Your task to perform on an android device: check data usage Image 0: 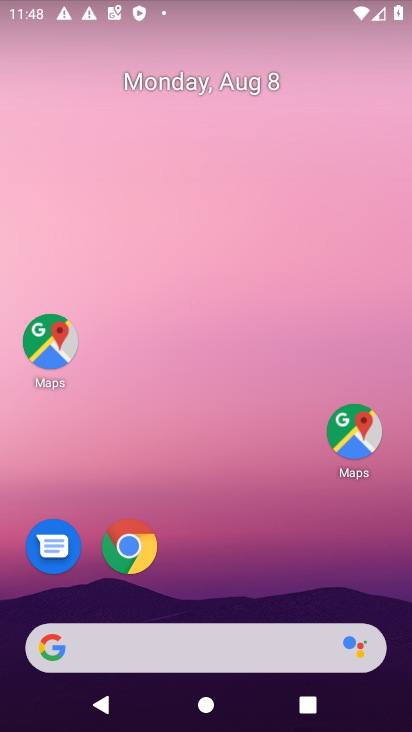
Step 0: click (216, 231)
Your task to perform on an android device: check data usage Image 1: 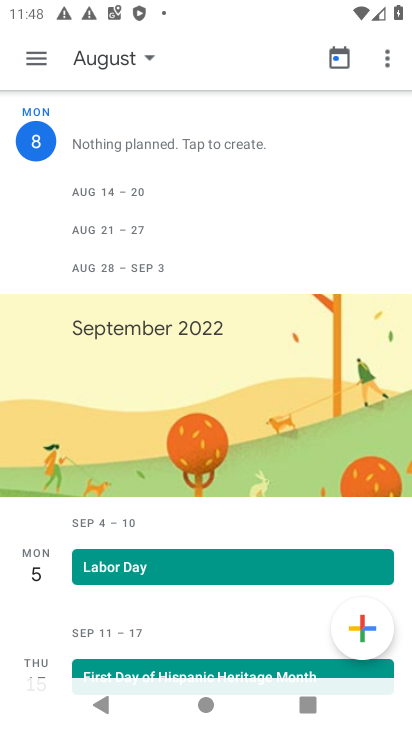
Step 1: press back button
Your task to perform on an android device: check data usage Image 2: 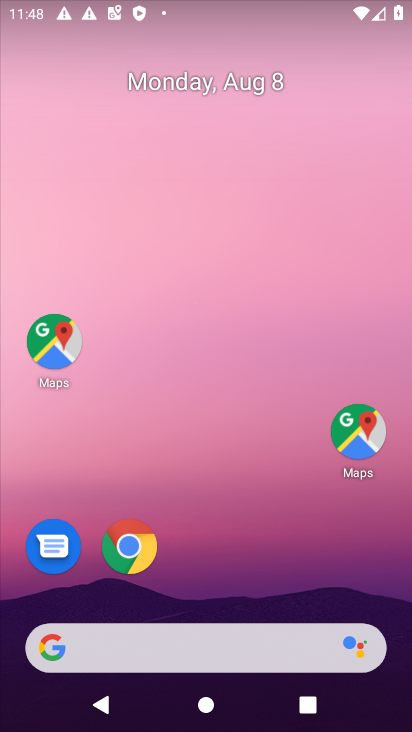
Step 2: drag from (225, 616) to (183, 123)
Your task to perform on an android device: check data usage Image 3: 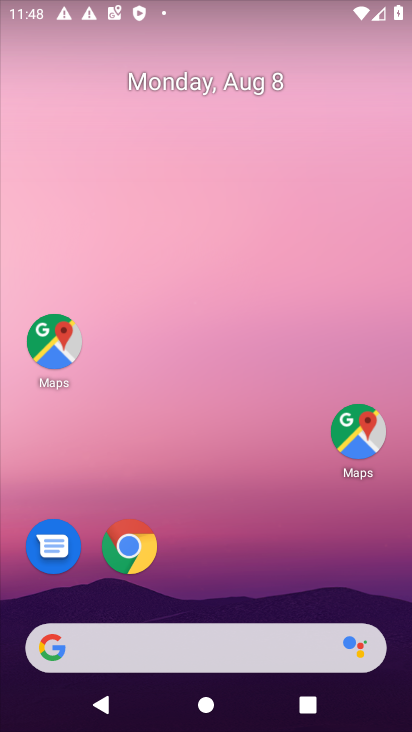
Step 3: drag from (192, 614) to (180, 356)
Your task to perform on an android device: check data usage Image 4: 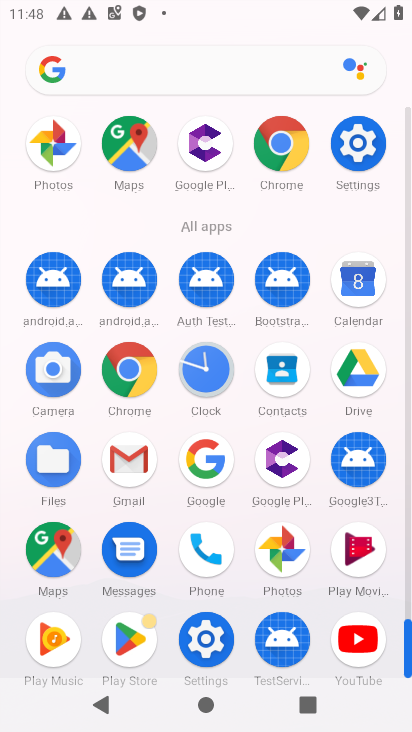
Step 4: click (349, 142)
Your task to perform on an android device: check data usage Image 5: 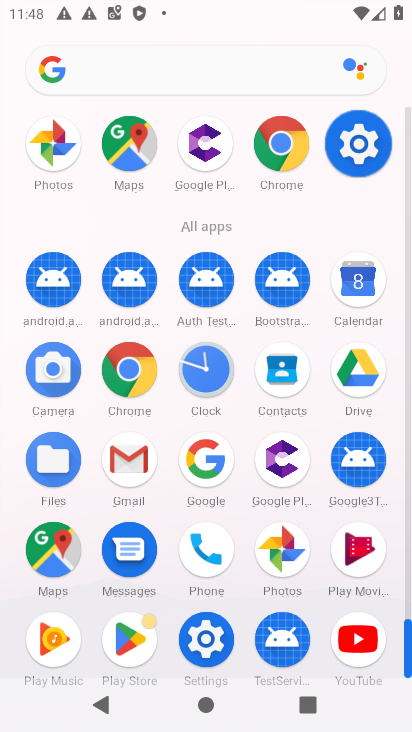
Step 5: click (350, 142)
Your task to perform on an android device: check data usage Image 6: 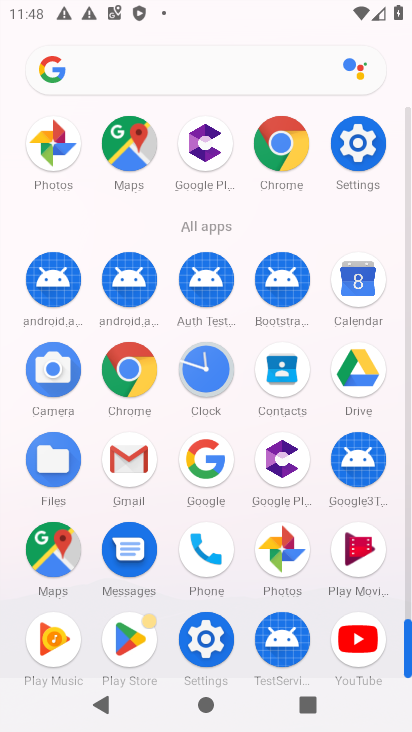
Step 6: click (352, 141)
Your task to perform on an android device: check data usage Image 7: 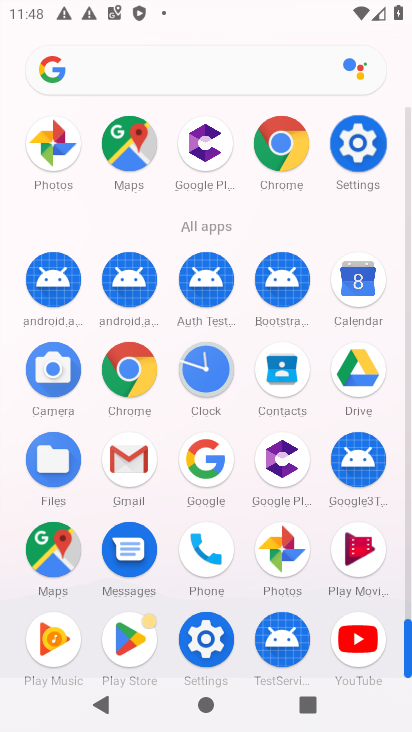
Step 7: click (352, 141)
Your task to perform on an android device: check data usage Image 8: 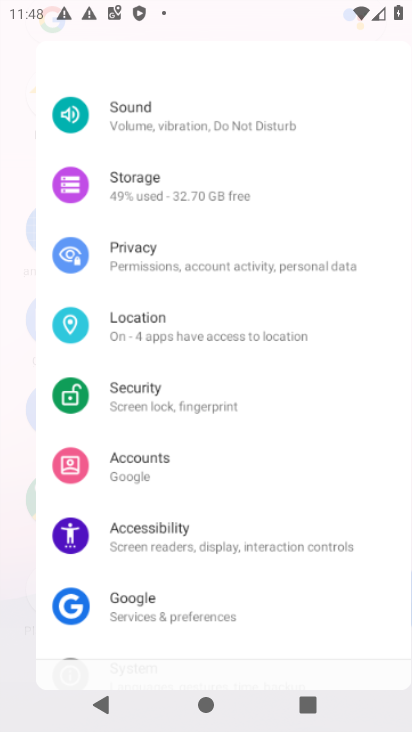
Step 8: click (358, 144)
Your task to perform on an android device: check data usage Image 9: 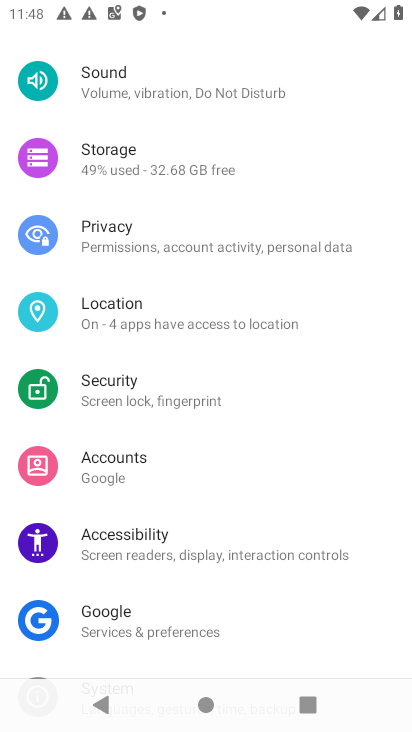
Step 9: drag from (131, 137) to (148, 470)
Your task to perform on an android device: check data usage Image 10: 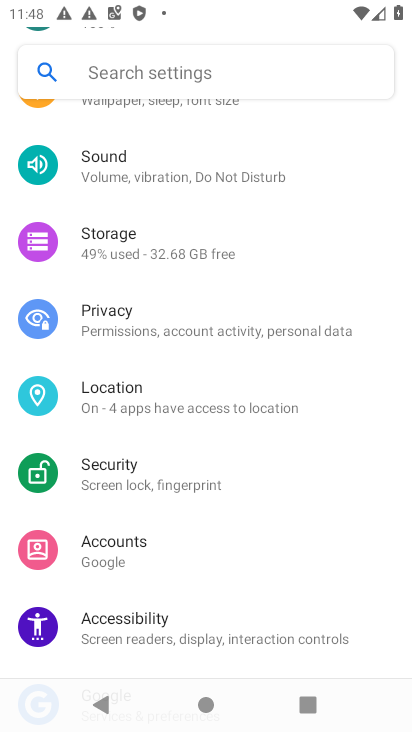
Step 10: drag from (145, 244) to (146, 575)
Your task to perform on an android device: check data usage Image 11: 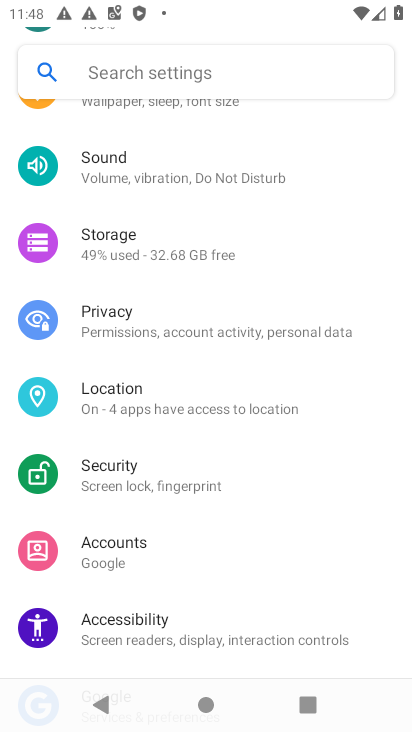
Step 11: drag from (127, 229) to (145, 526)
Your task to perform on an android device: check data usage Image 12: 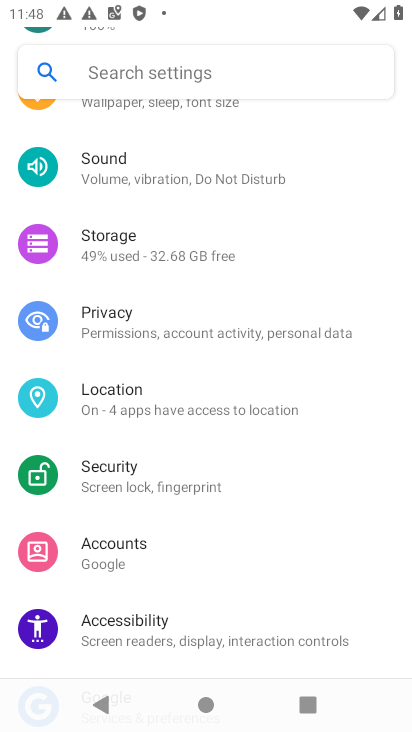
Step 12: drag from (168, 283) to (206, 546)
Your task to perform on an android device: check data usage Image 13: 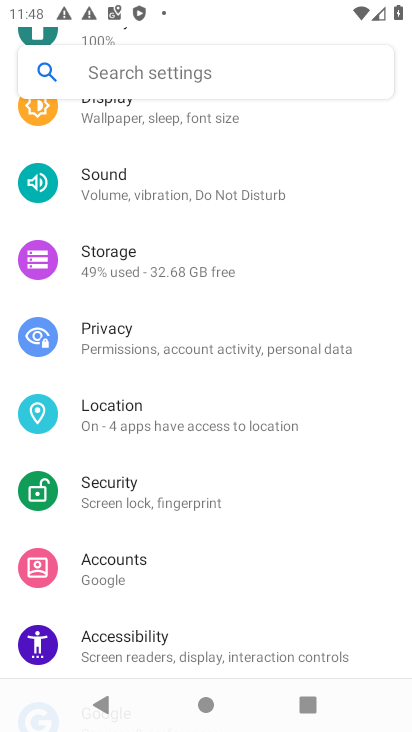
Step 13: drag from (181, 284) to (181, 564)
Your task to perform on an android device: check data usage Image 14: 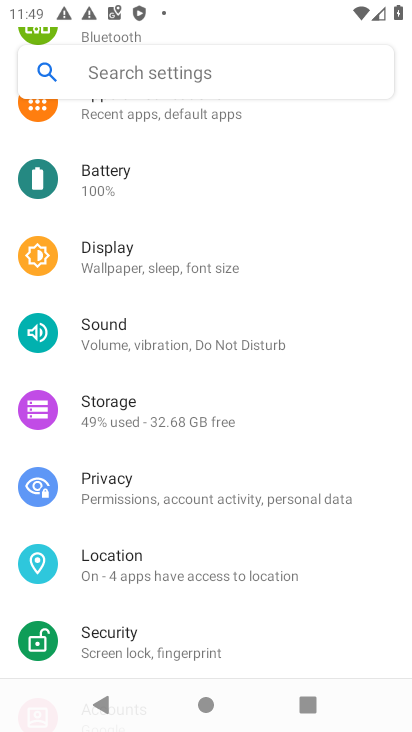
Step 14: drag from (202, 222) to (168, 606)
Your task to perform on an android device: check data usage Image 15: 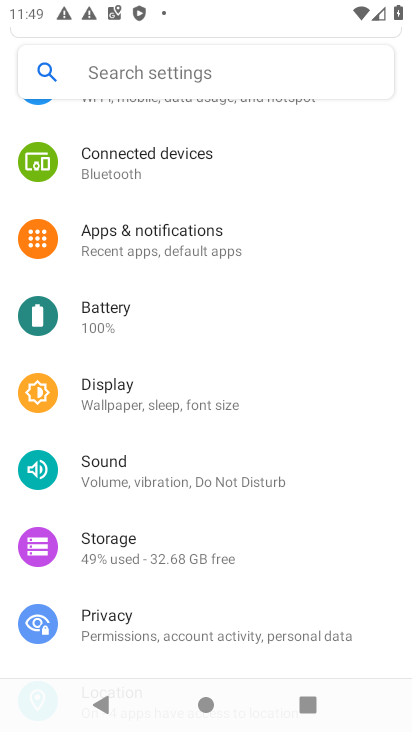
Step 15: drag from (175, 272) to (180, 563)
Your task to perform on an android device: check data usage Image 16: 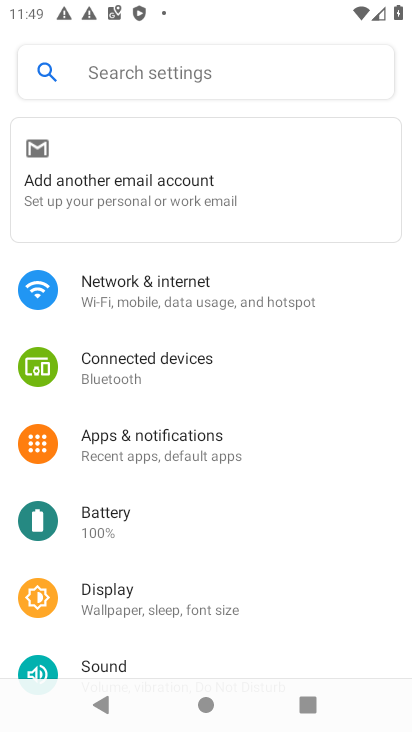
Step 16: drag from (182, 207) to (182, 499)
Your task to perform on an android device: check data usage Image 17: 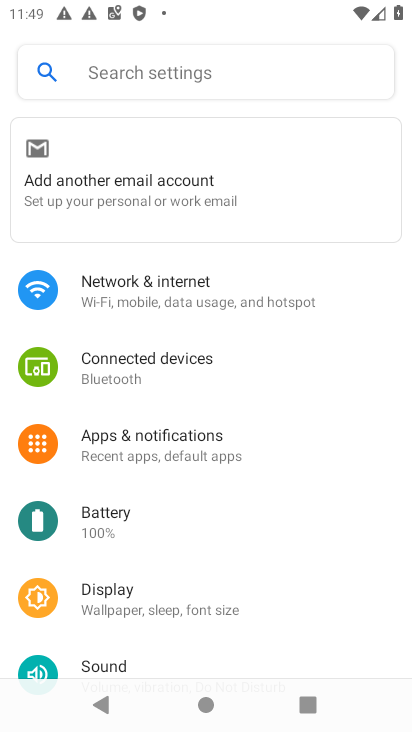
Step 17: click (116, 280)
Your task to perform on an android device: check data usage Image 18: 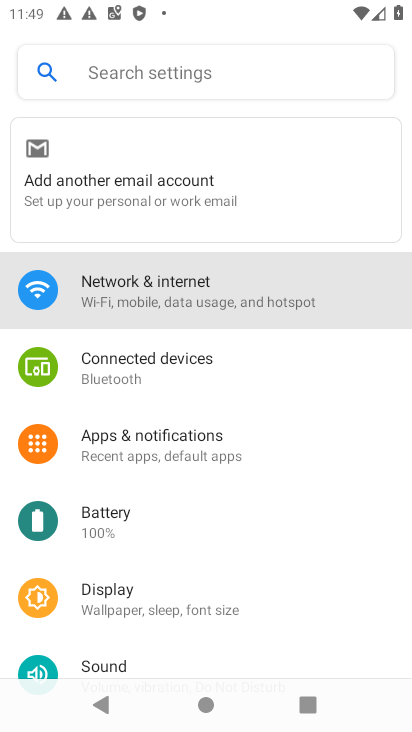
Step 18: click (120, 287)
Your task to perform on an android device: check data usage Image 19: 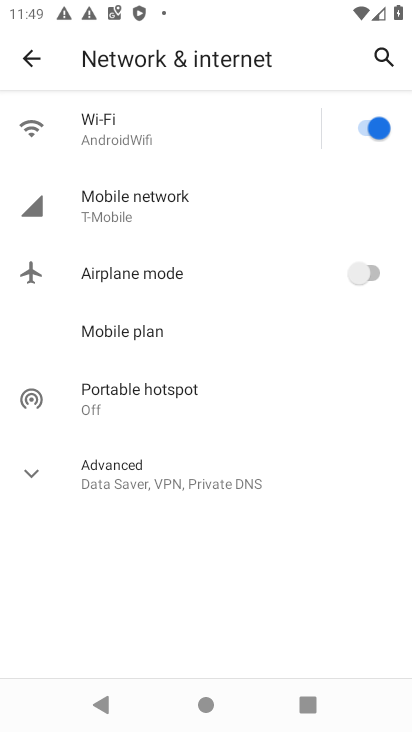
Step 19: click (123, 199)
Your task to perform on an android device: check data usage Image 20: 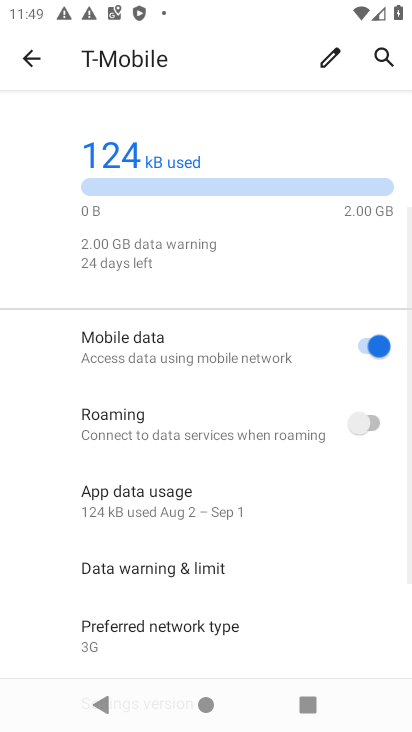
Step 20: click (35, 56)
Your task to perform on an android device: check data usage Image 21: 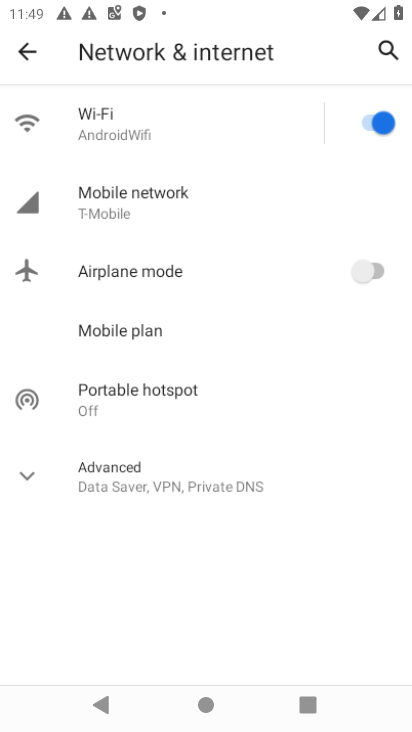
Step 21: task complete